Your task to perform on an android device: delete the emails in spam in the gmail app Image 0: 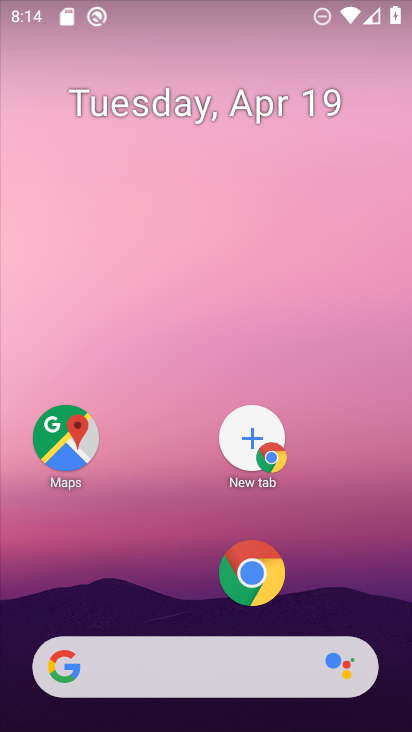
Step 0: drag from (199, 614) to (219, 221)
Your task to perform on an android device: delete the emails in spam in the gmail app Image 1: 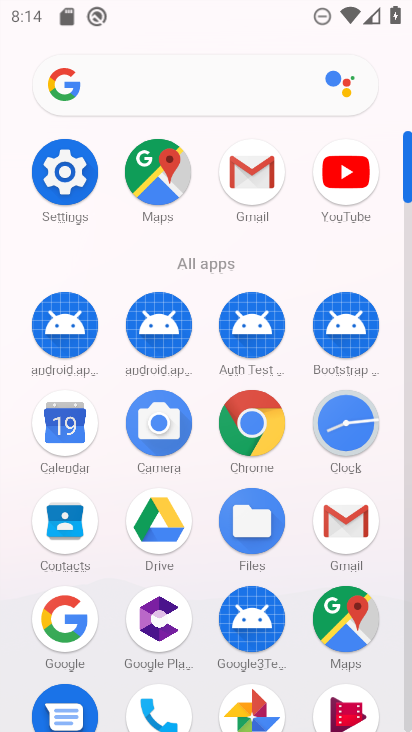
Step 1: click (234, 163)
Your task to perform on an android device: delete the emails in spam in the gmail app Image 2: 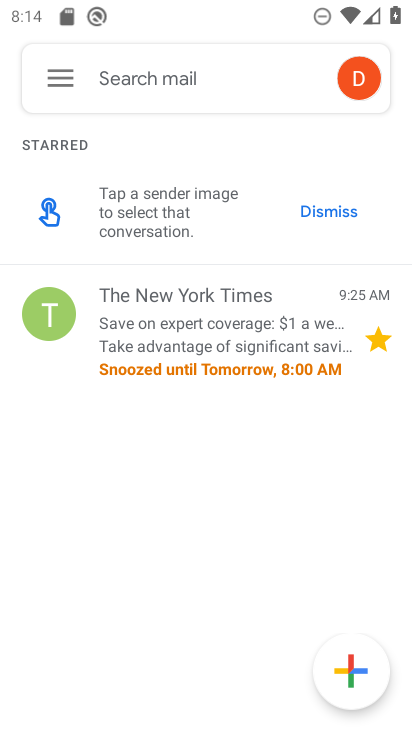
Step 2: click (45, 73)
Your task to perform on an android device: delete the emails in spam in the gmail app Image 3: 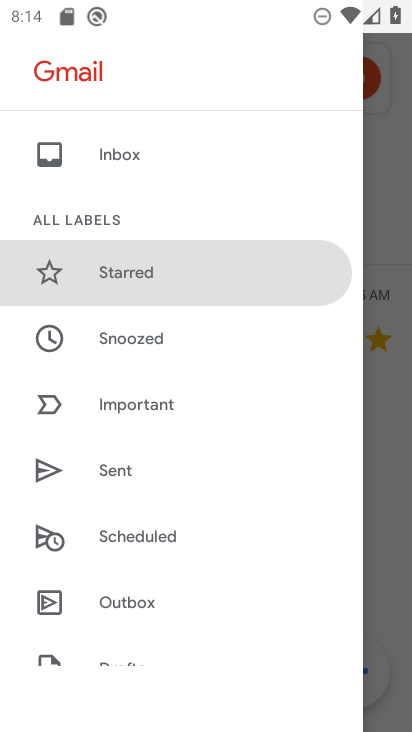
Step 3: drag from (329, 629) to (363, 174)
Your task to perform on an android device: delete the emails in spam in the gmail app Image 4: 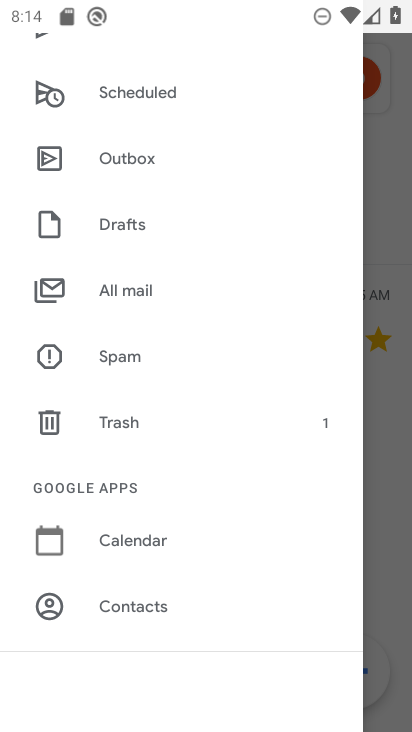
Step 4: click (155, 366)
Your task to perform on an android device: delete the emails in spam in the gmail app Image 5: 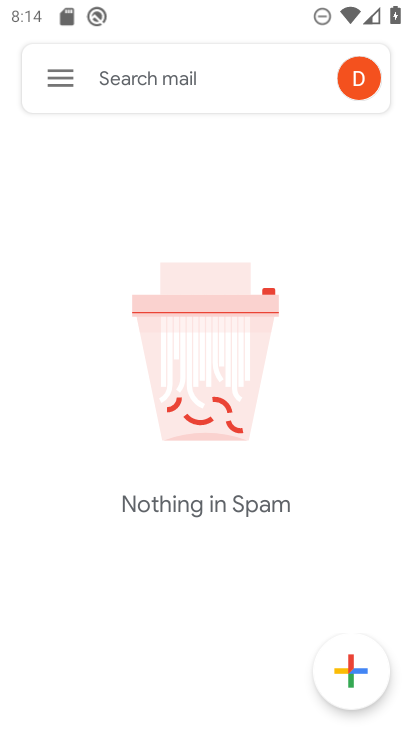
Step 5: task complete